Your task to perform on an android device: When is my next meeting? Image 0: 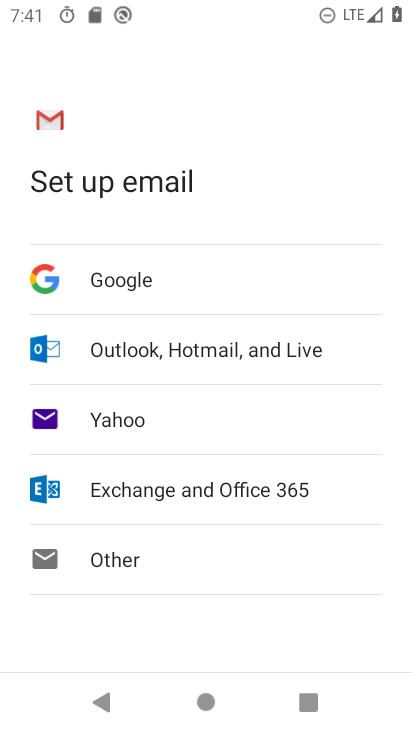
Step 0: press home button
Your task to perform on an android device: When is my next meeting? Image 1: 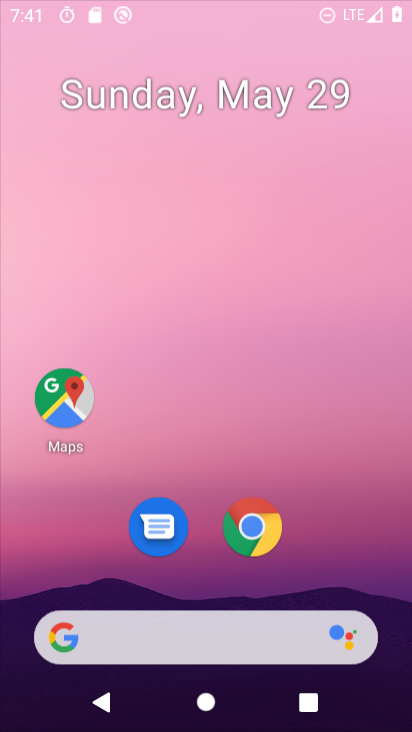
Step 1: drag from (354, 625) to (308, 40)
Your task to perform on an android device: When is my next meeting? Image 2: 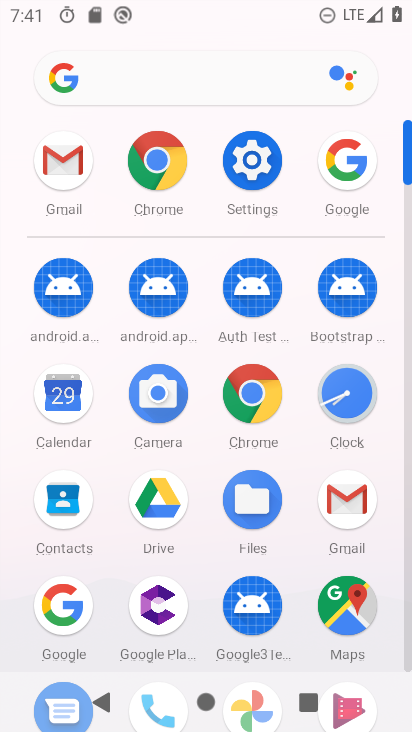
Step 2: click (71, 416)
Your task to perform on an android device: When is my next meeting? Image 3: 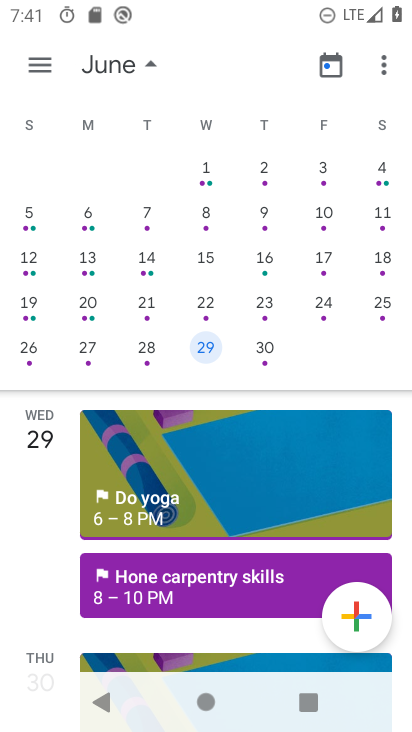
Step 3: task complete